Your task to perform on an android device: Open sound settings Image 0: 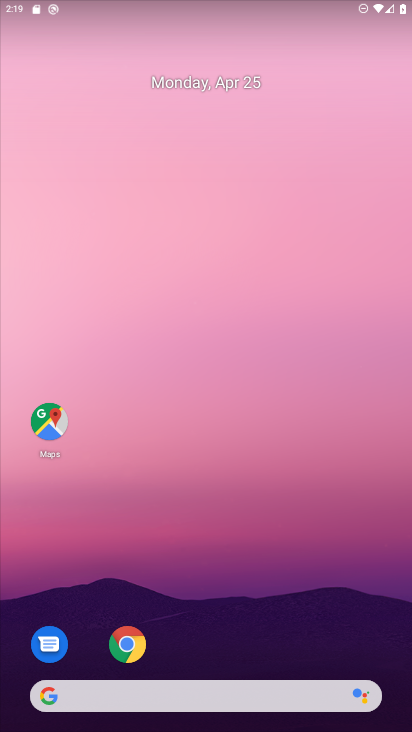
Step 0: drag from (212, 642) to (191, 238)
Your task to perform on an android device: Open sound settings Image 1: 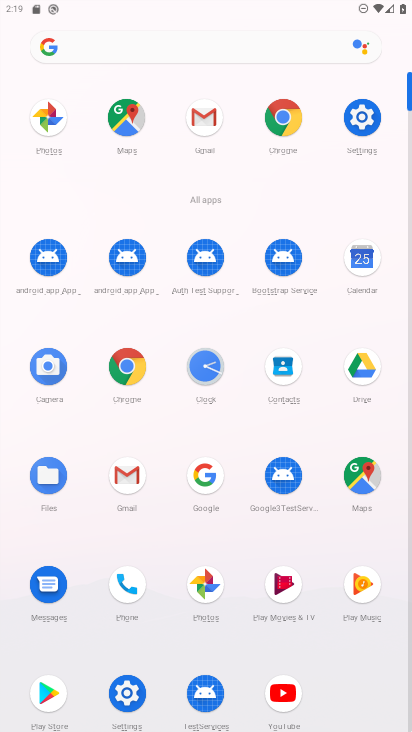
Step 1: click (361, 111)
Your task to perform on an android device: Open sound settings Image 2: 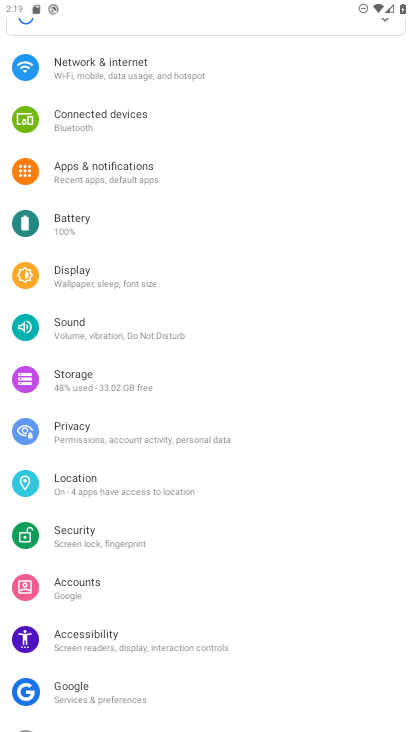
Step 2: click (194, 331)
Your task to perform on an android device: Open sound settings Image 3: 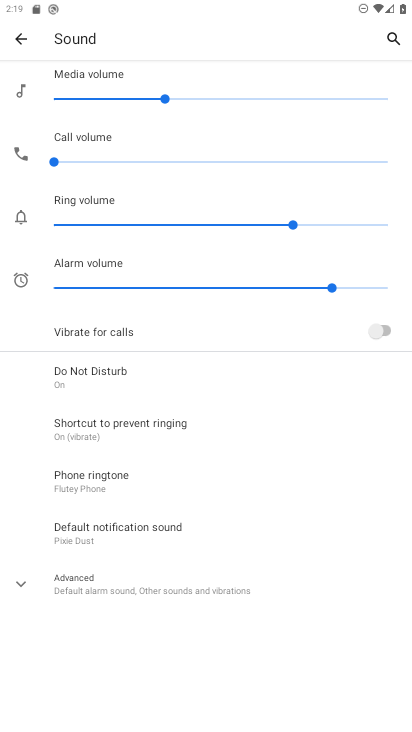
Step 3: task complete